Your task to perform on an android device: star an email in the gmail app Image 0: 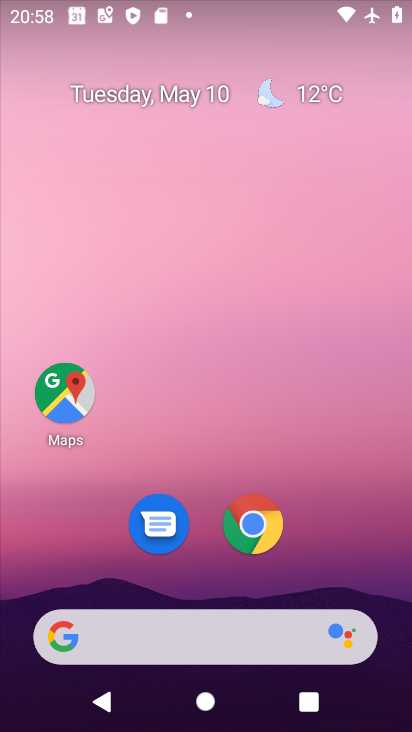
Step 0: drag from (301, 476) to (295, 77)
Your task to perform on an android device: star an email in the gmail app Image 1: 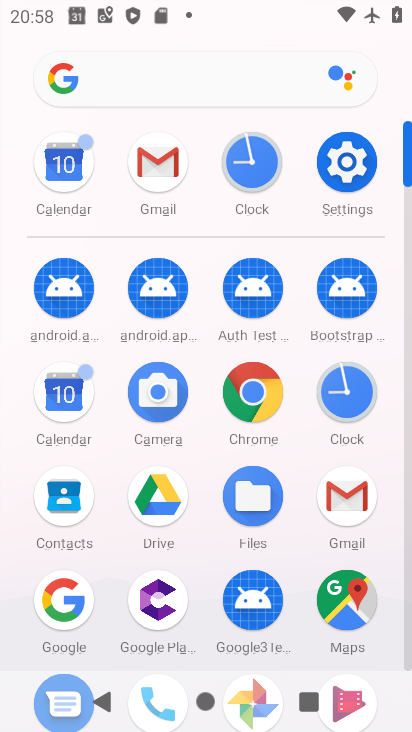
Step 1: click (156, 155)
Your task to perform on an android device: star an email in the gmail app Image 2: 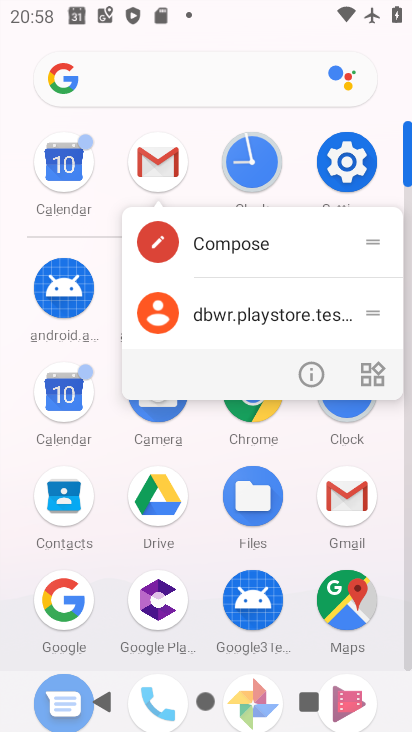
Step 2: click (156, 153)
Your task to perform on an android device: star an email in the gmail app Image 3: 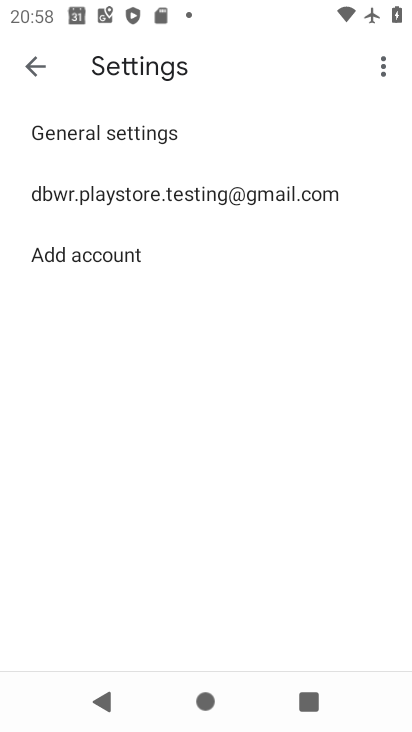
Step 3: click (29, 63)
Your task to perform on an android device: star an email in the gmail app Image 4: 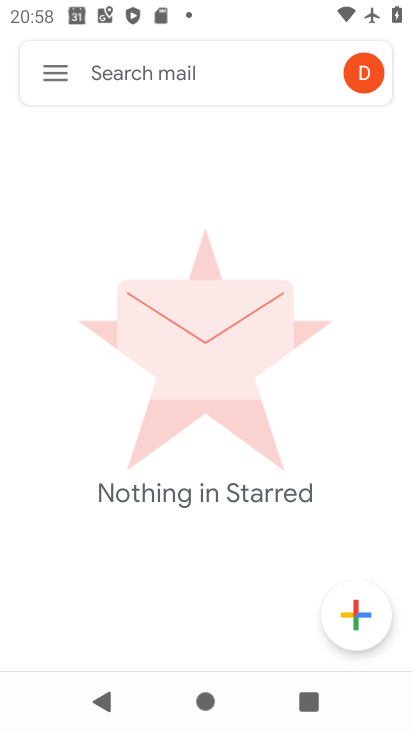
Step 4: click (56, 67)
Your task to perform on an android device: star an email in the gmail app Image 5: 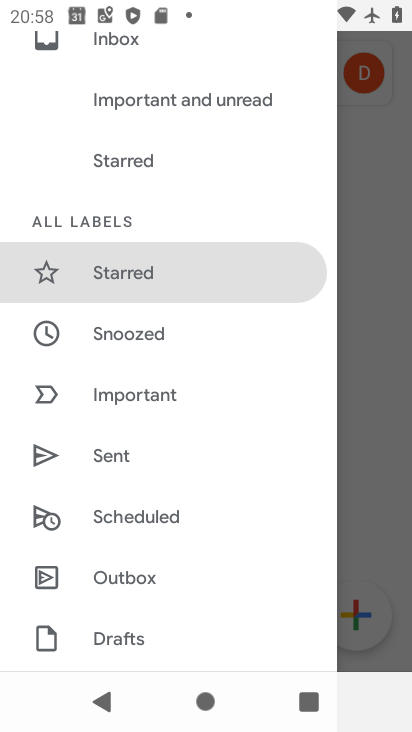
Step 5: drag from (191, 551) to (200, 176)
Your task to perform on an android device: star an email in the gmail app Image 6: 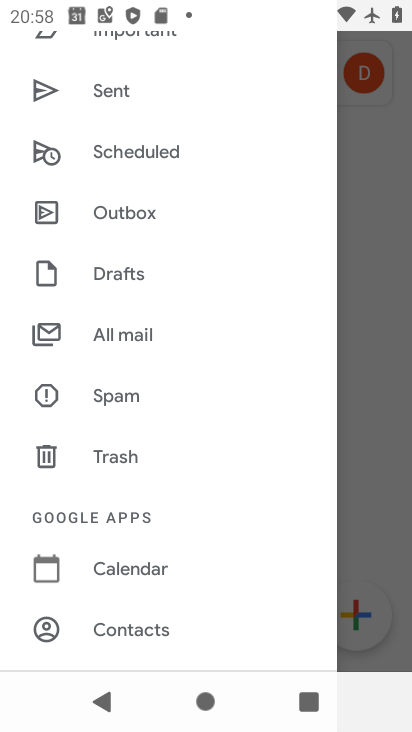
Step 6: click (154, 331)
Your task to perform on an android device: star an email in the gmail app Image 7: 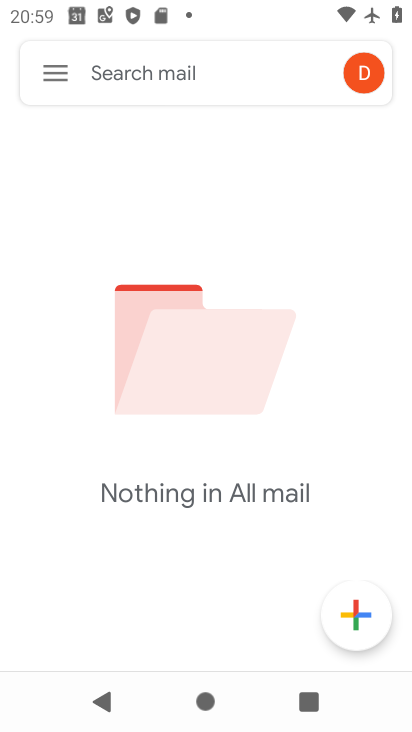
Step 7: task complete